Your task to perform on an android device: Go to Wikipedia Image 0: 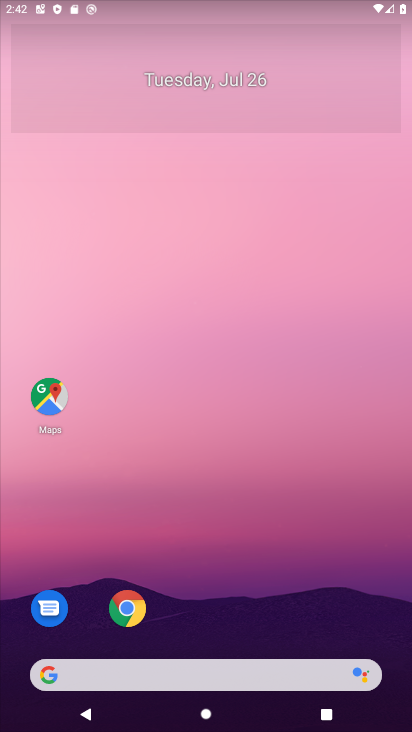
Step 0: click (257, 677)
Your task to perform on an android device: Go to Wikipedia Image 1: 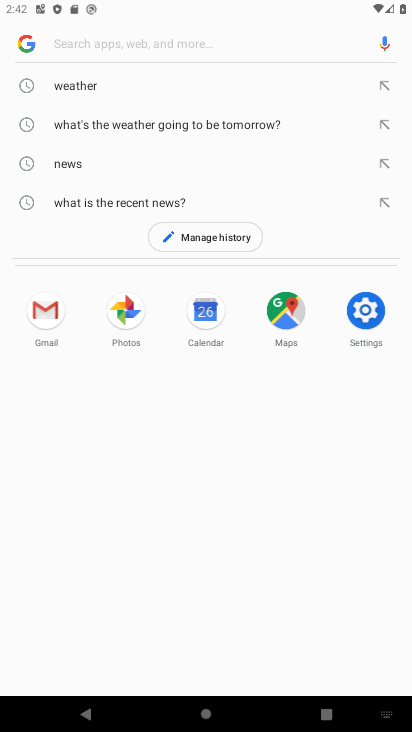
Step 1: type "Wikipedia"
Your task to perform on an android device: Go to Wikipedia Image 2: 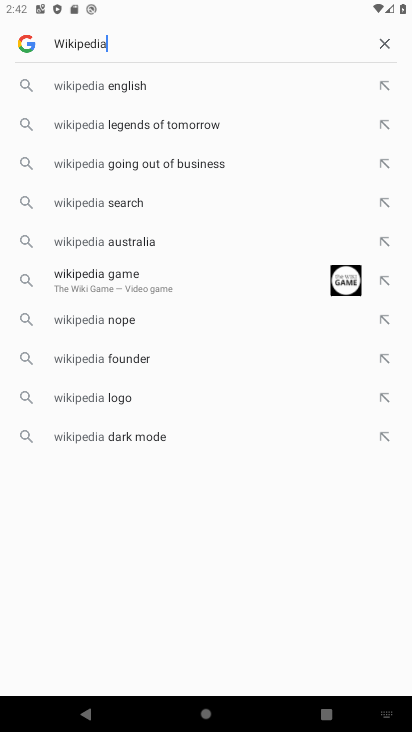
Step 2: press enter
Your task to perform on an android device: Go to Wikipedia Image 3: 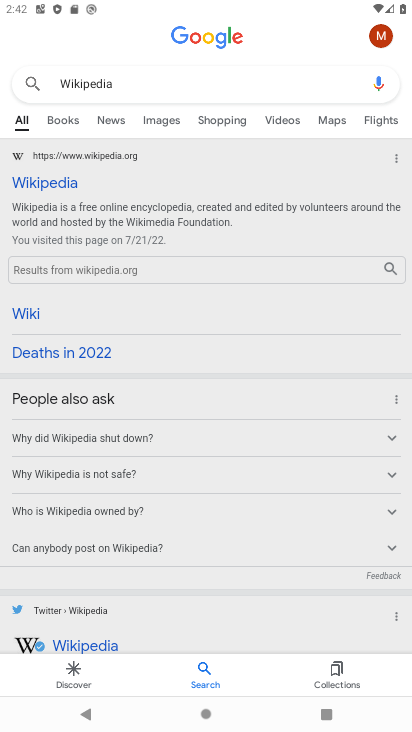
Step 3: click (50, 183)
Your task to perform on an android device: Go to Wikipedia Image 4: 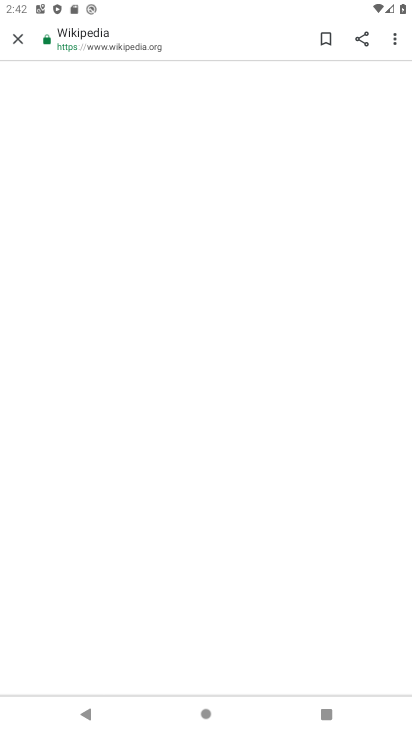
Step 4: task complete